Your task to perform on an android device: View the shopping cart on costco.com. Search for "razer blade" on costco.com, select the first entry, and add it to the cart. Image 0: 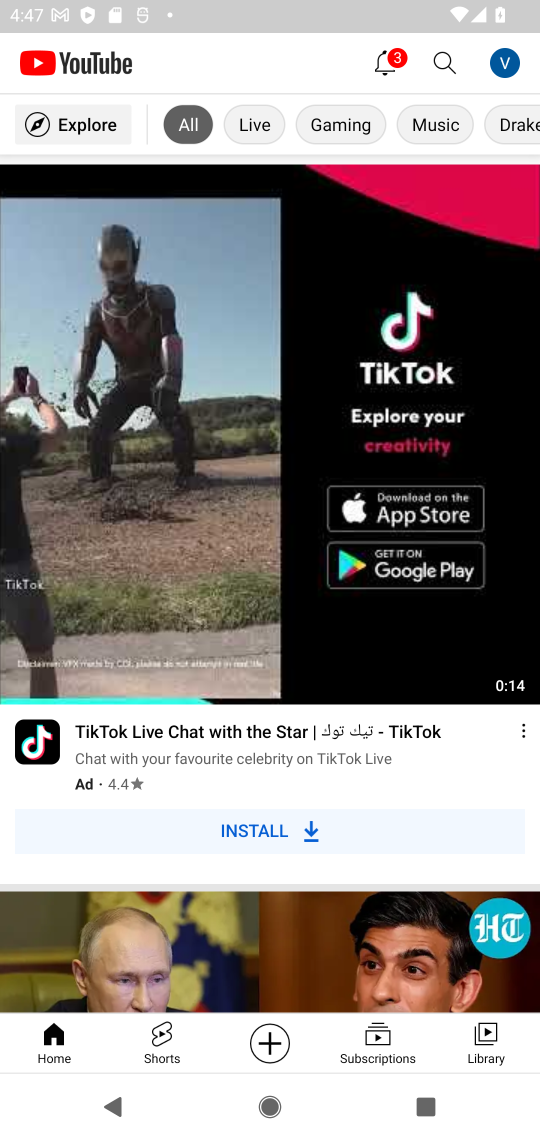
Step 0: press home button
Your task to perform on an android device: View the shopping cart on costco.com. Search for "razer blade" on costco.com, select the first entry, and add it to the cart. Image 1: 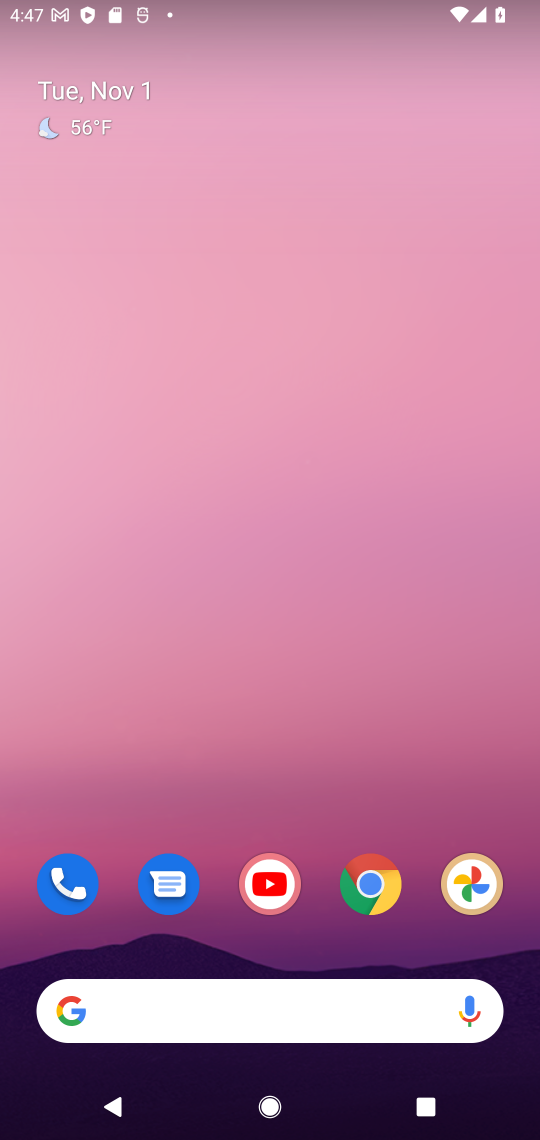
Step 1: click (373, 884)
Your task to perform on an android device: View the shopping cart on costco.com. Search for "razer blade" on costco.com, select the first entry, and add it to the cart. Image 2: 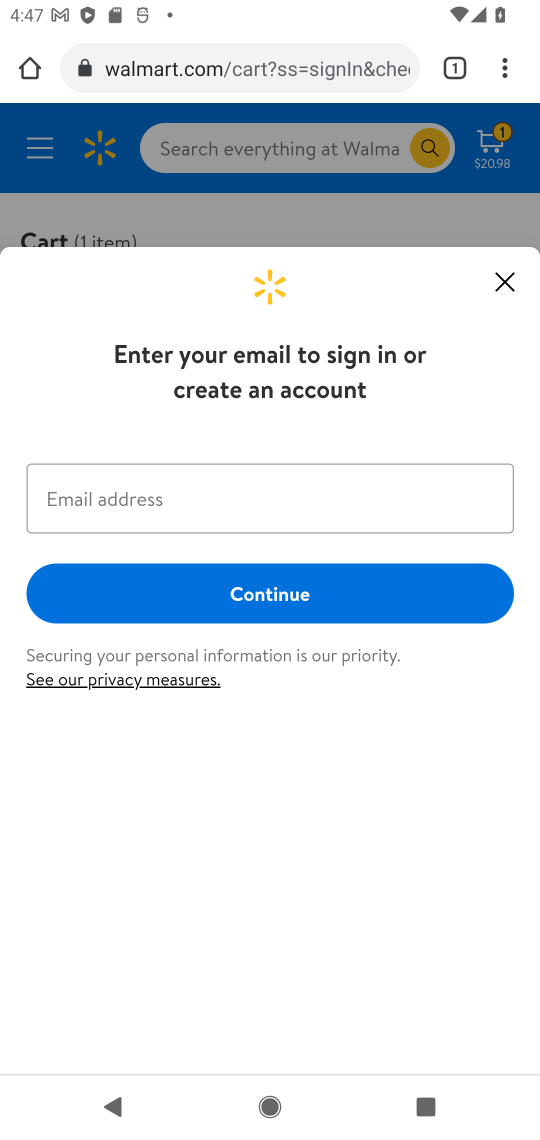
Step 2: click (223, 65)
Your task to perform on an android device: View the shopping cart on costco.com. Search for "razer blade" on costco.com, select the first entry, and add it to the cart. Image 3: 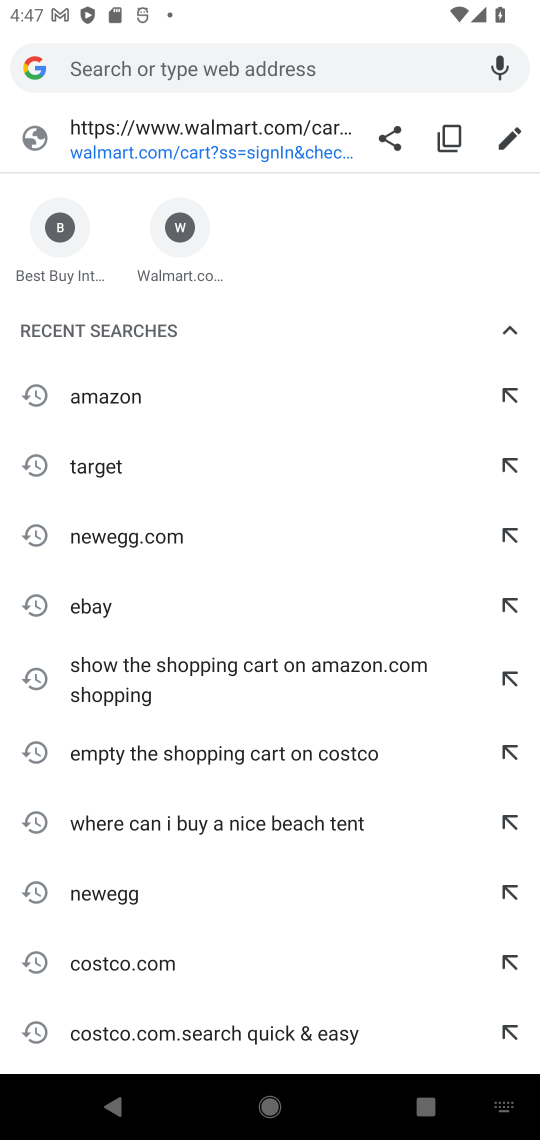
Step 3: type "costco"
Your task to perform on an android device: View the shopping cart on costco.com. Search for "razer blade" on costco.com, select the first entry, and add it to the cart. Image 4: 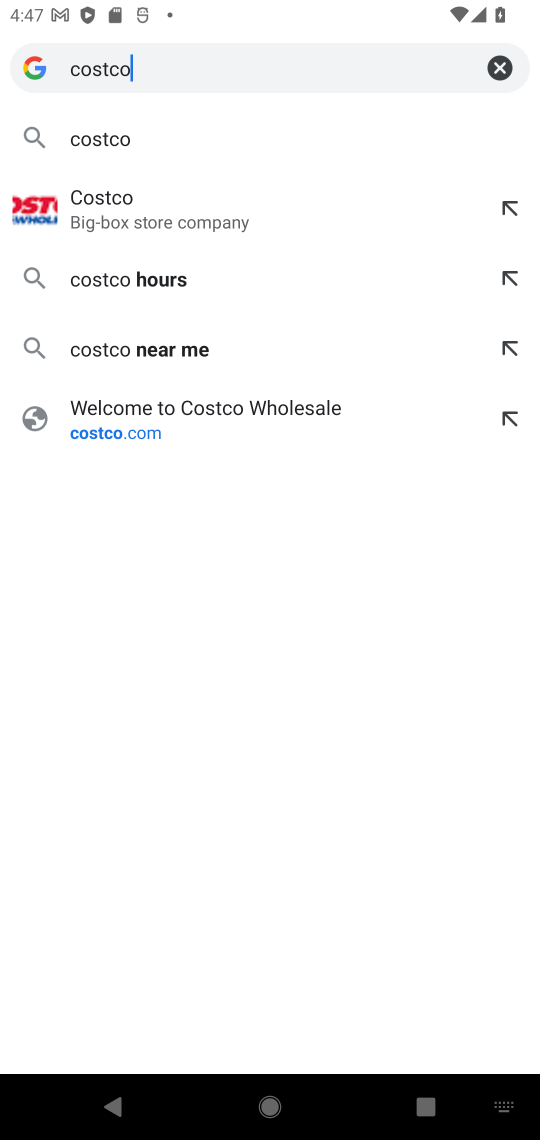
Step 4: click (182, 194)
Your task to perform on an android device: View the shopping cart on costco.com. Search for "razer blade" on costco.com, select the first entry, and add it to the cart. Image 5: 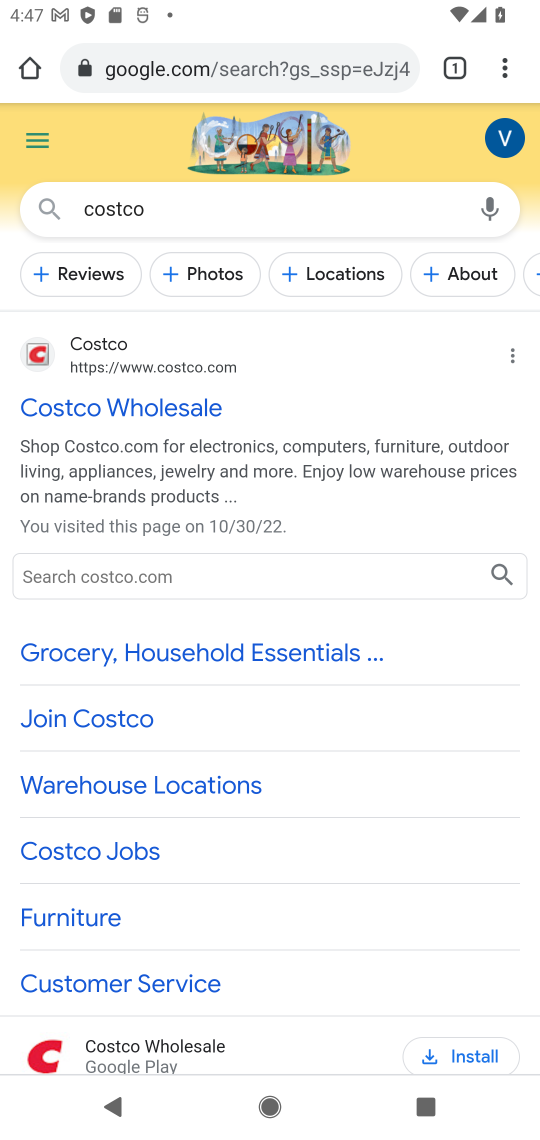
Step 5: click (211, 396)
Your task to perform on an android device: View the shopping cart on costco.com. Search for "razer blade" on costco.com, select the first entry, and add it to the cart. Image 6: 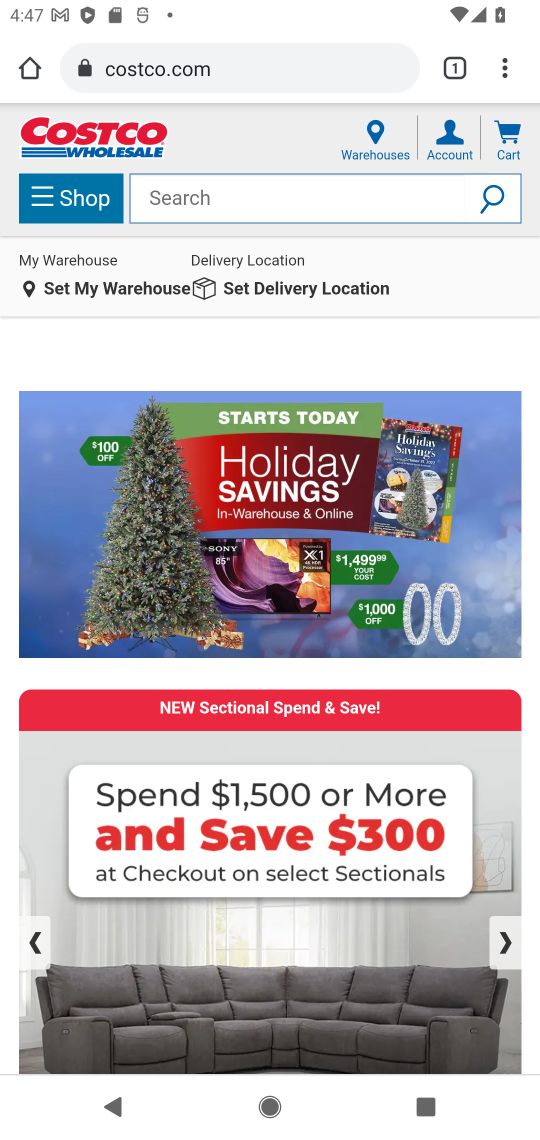
Step 6: click (299, 192)
Your task to perform on an android device: View the shopping cart on costco.com. Search for "razer blade" on costco.com, select the first entry, and add it to the cart. Image 7: 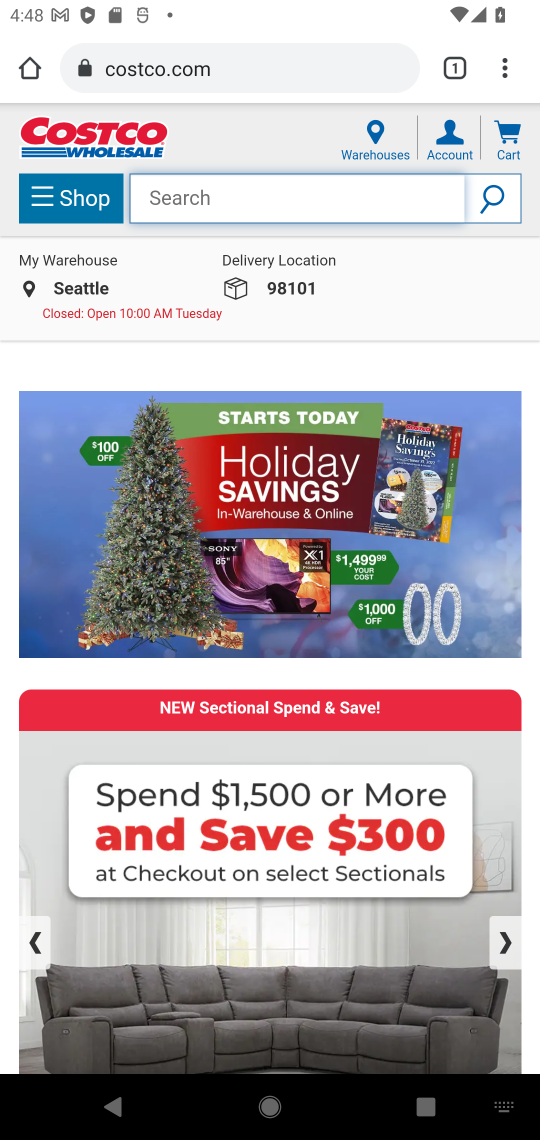
Step 7: type "razer blade"
Your task to perform on an android device: View the shopping cart on costco.com. Search for "razer blade" on costco.com, select the first entry, and add it to the cart. Image 8: 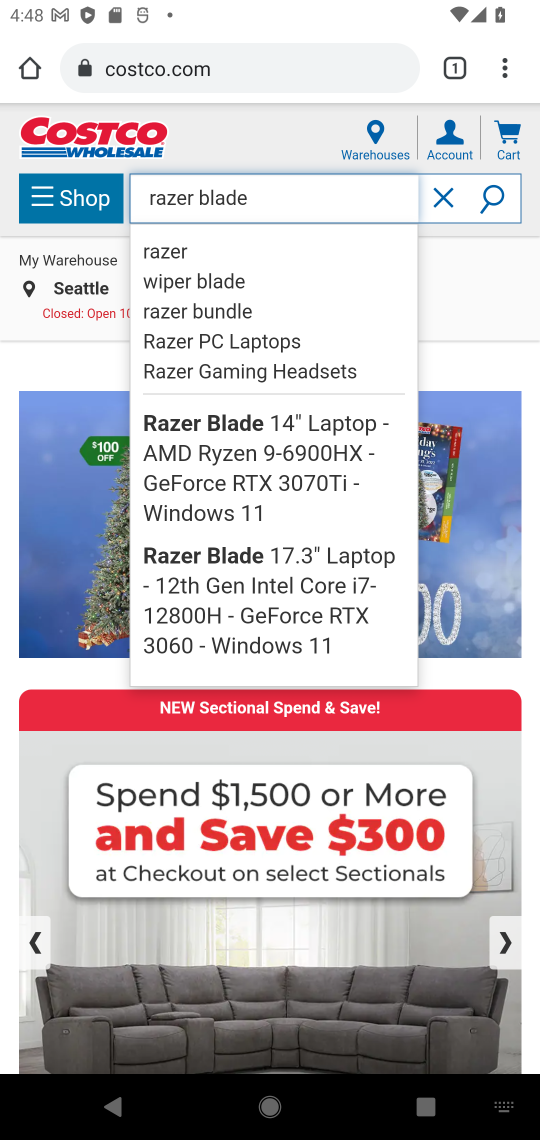
Step 8: click (494, 190)
Your task to perform on an android device: View the shopping cart on costco.com. Search for "razer blade" on costco.com, select the first entry, and add it to the cart. Image 9: 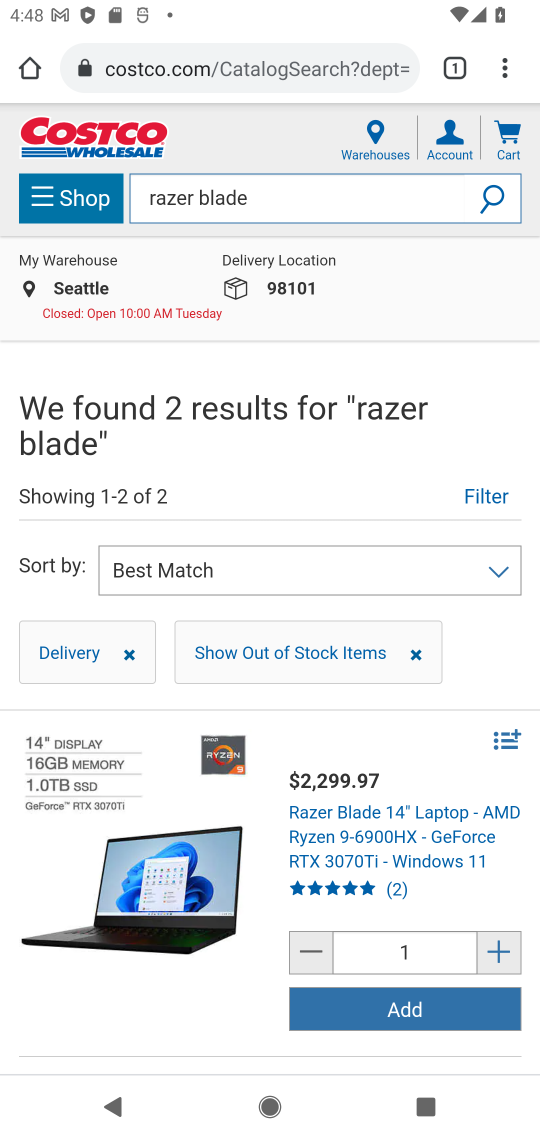
Step 9: click (429, 1010)
Your task to perform on an android device: View the shopping cart on costco.com. Search for "razer blade" on costco.com, select the first entry, and add it to the cart. Image 10: 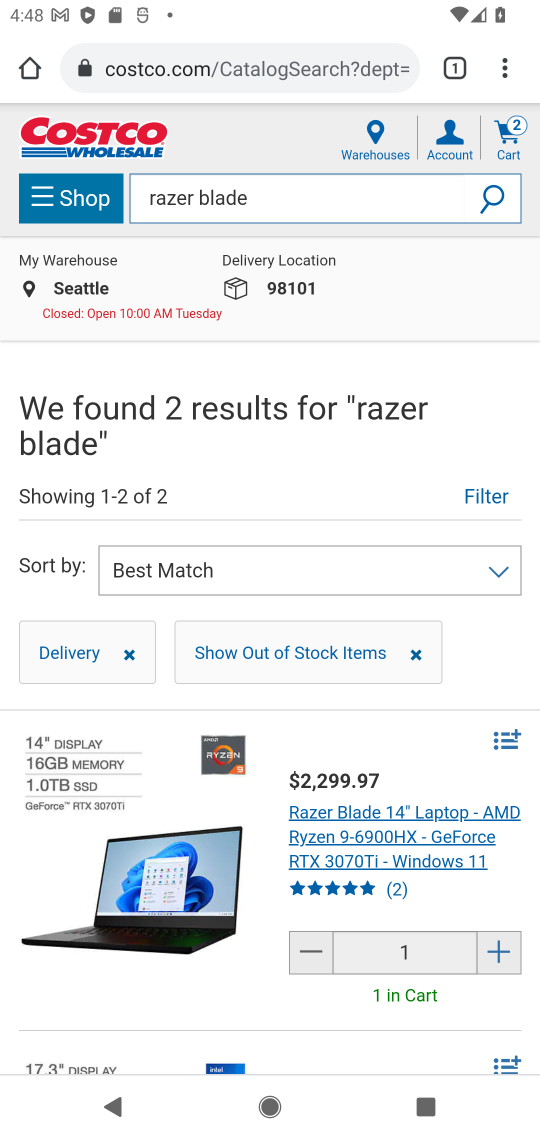
Step 10: click (503, 137)
Your task to perform on an android device: View the shopping cart on costco.com. Search for "razer blade" on costco.com, select the first entry, and add it to the cart. Image 11: 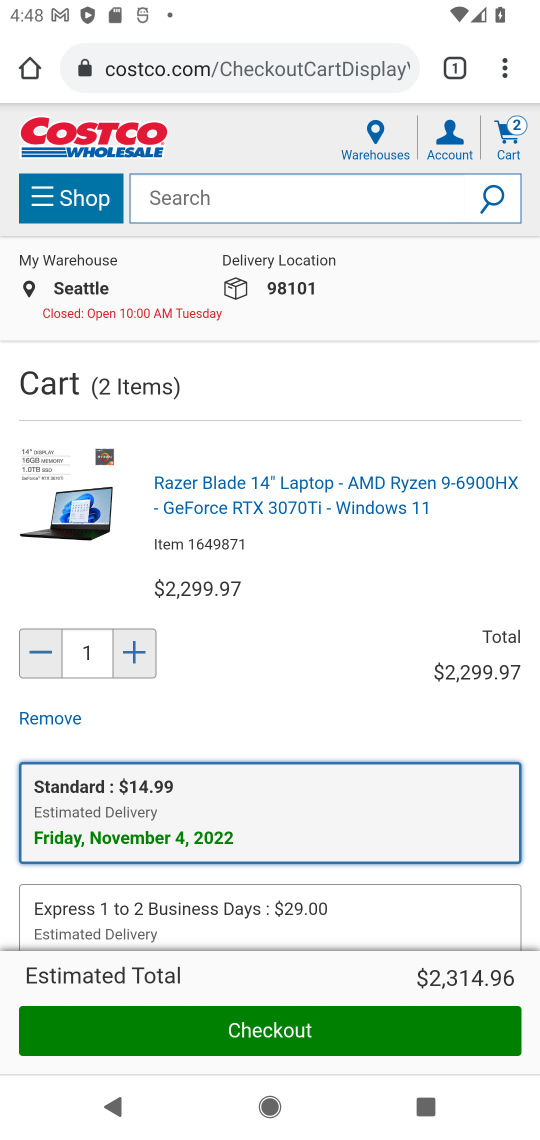
Step 11: click (303, 1035)
Your task to perform on an android device: View the shopping cart on costco.com. Search for "razer blade" on costco.com, select the first entry, and add it to the cart. Image 12: 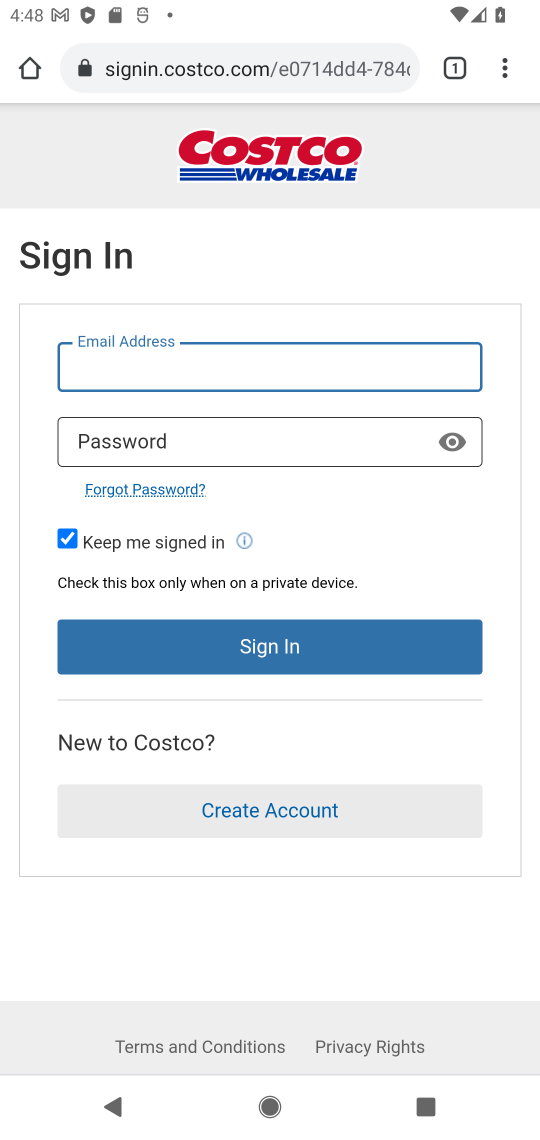
Step 12: task complete